Your task to perform on an android device: Open privacy settings Image 0: 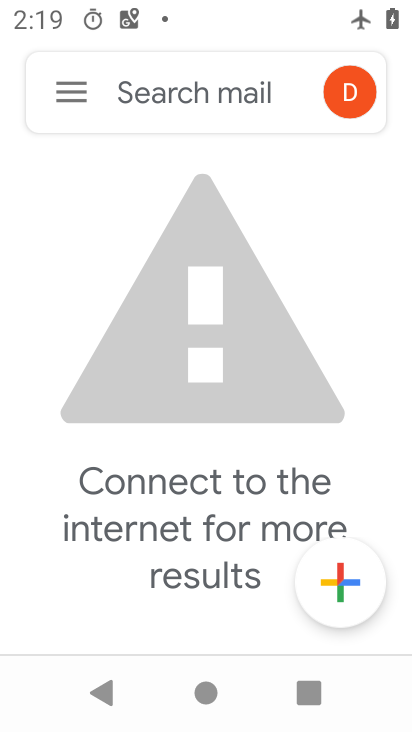
Step 0: press home button
Your task to perform on an android device: Open privacy settings Image 1: 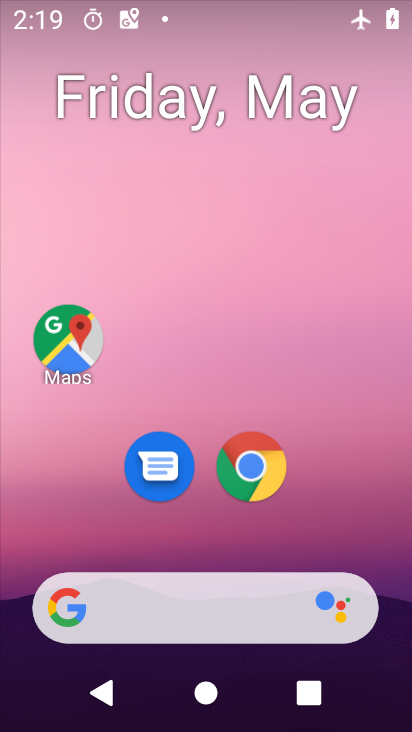
Step 1: drag from (359, 523) to (396, 12)
Your task to perform on an android device: Open privacy settings Image 2: 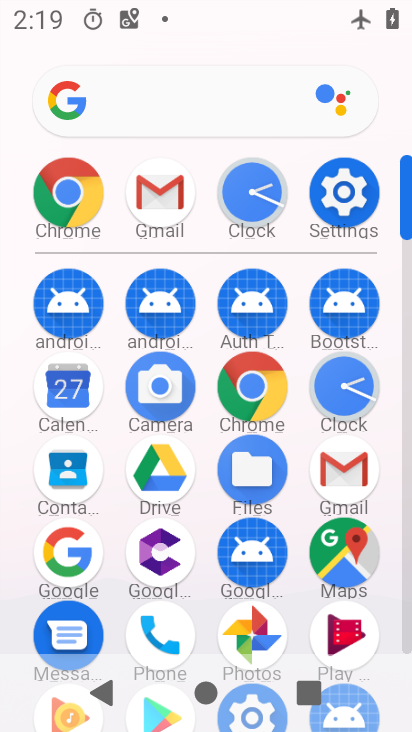
Step 2: click (343, 194)
Your task to perform on an android device: Open privacy settings Image 3: 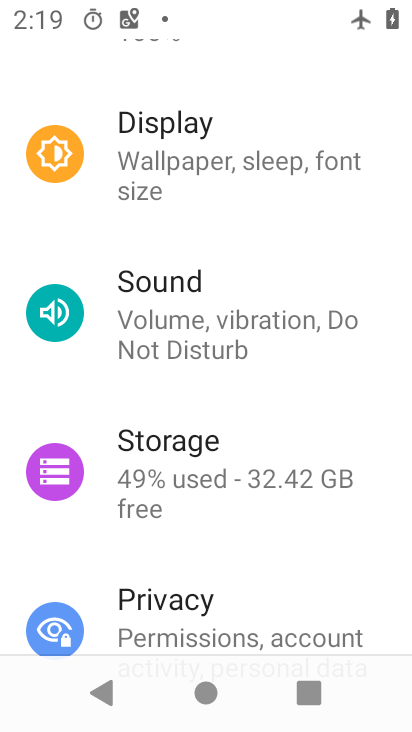
Step 3: drag from (170, 600) to (233, 107)
Your task to perform on an android device: Open privacy settings Image 4: 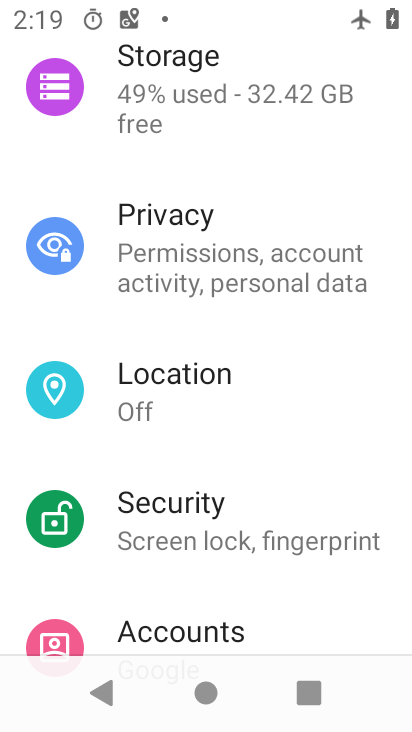
Step 4: click (157, 248)
Your task to perform on an android device: Open privacy settings Image 5: 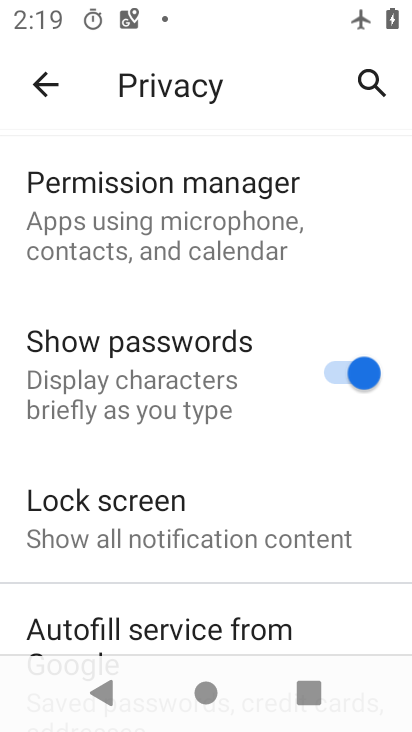
Step 5: task complete